Your task to perform on an android device: Search for Italian restaurants on Maps Image 0: 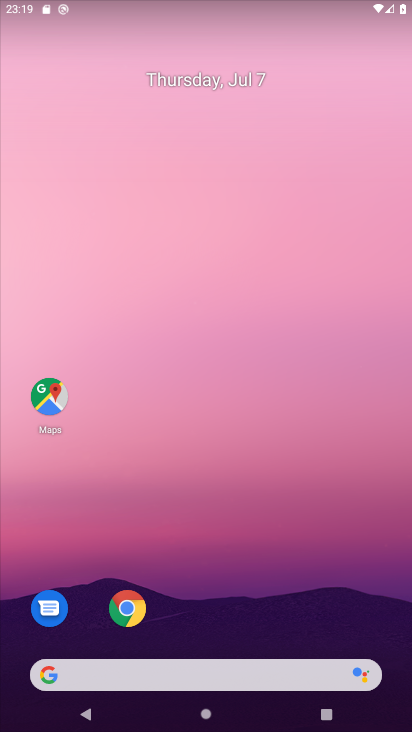
Step 0: drag from (221, 621) to (221, 378)
Your task to perform on an android device: Search for Italian restaurants on Maps Image 1: 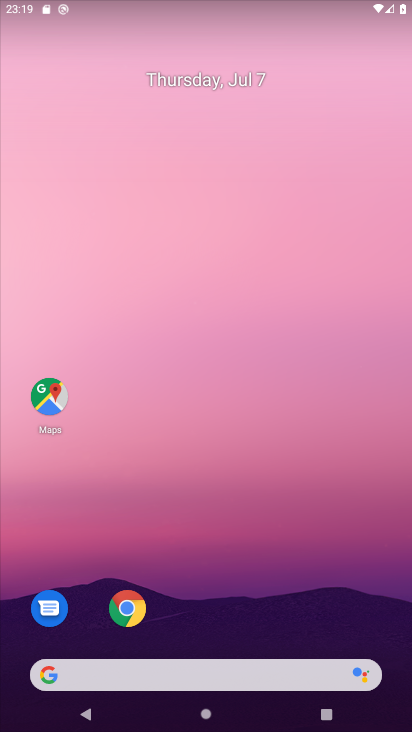
Step 1: drag from (232, 638) to (236, 454)
Your task to perform on an android device: Search for Italian restaurants on Maps Image 2: 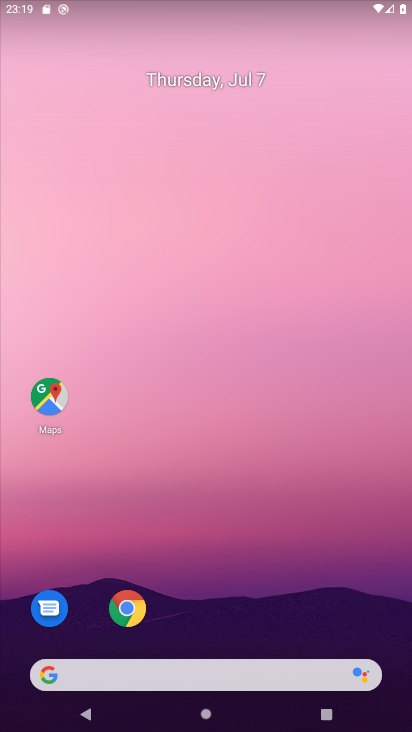
Step 2: drag from (193, 621) to (185, 34)
Your task to perform on an android device: Search for Italian restaurants on Maps Image 3: 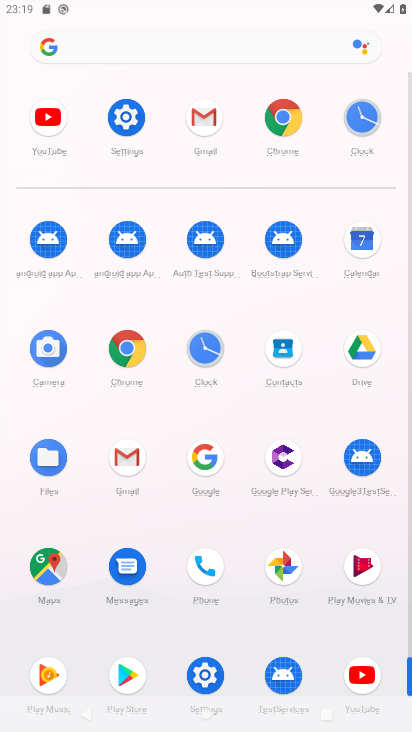
Step 3: click (58, 566)
Your task to perform on an android device: Search for Italian restaurants on Maps Image 4: 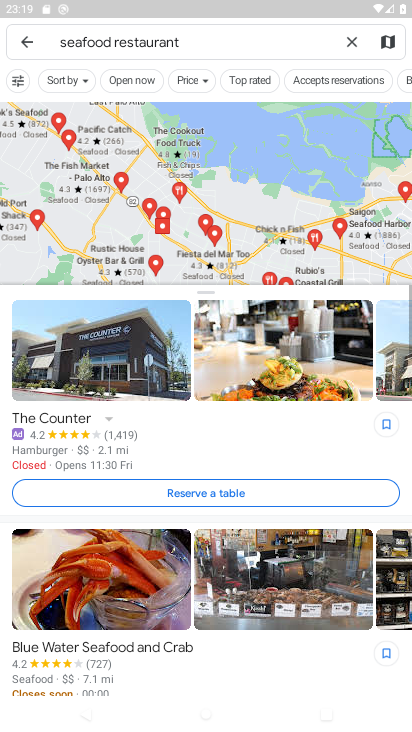
Step 4: click (344, 40)
Your task to perform on an android device: Search for Italian restaurants on Maps Image 5: 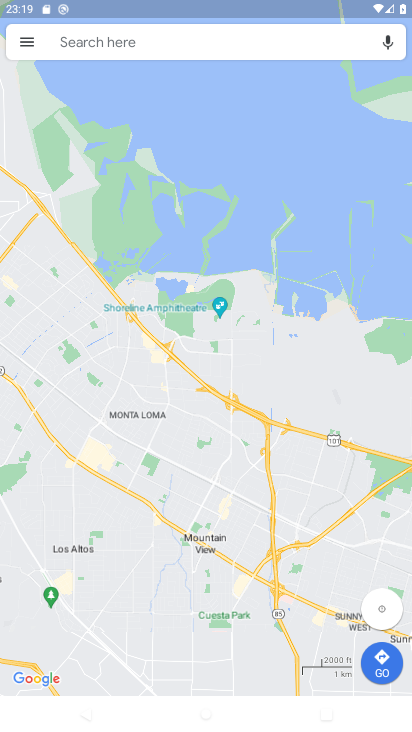
Step 5: click (133, 35)
Your task to perform on an android device: Search for Italian restaurants on Maps Image 6: 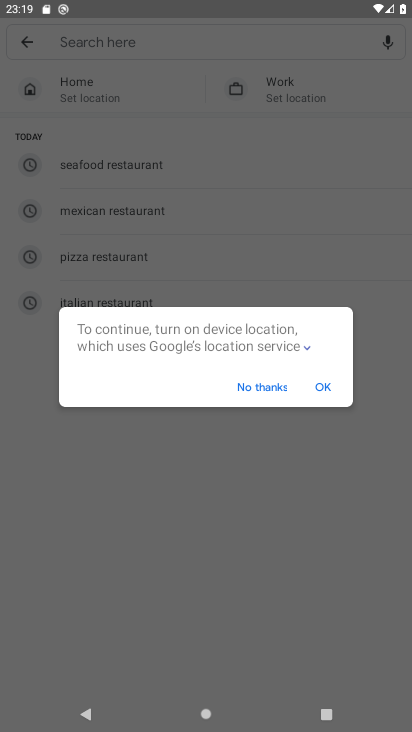
Step 6: click (321, 383)
Your task to perform on an android device: Search for Italian restaurants on Maps Image 7: 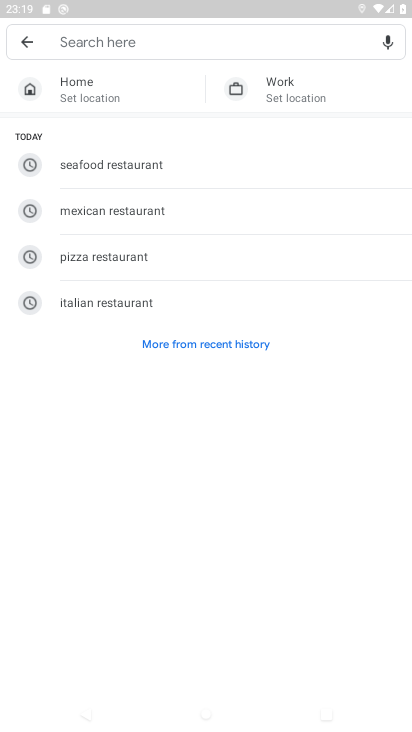
Step 7: click (163, 310)
Your task to perform on an android device: Search for Italian restaurants on Maps Image 8: 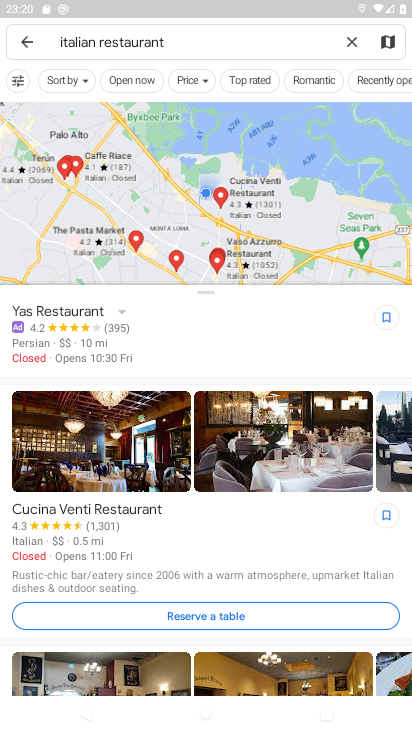
Step 8: task complete